Your task to perform on an android device: Clear the shopping cart on amazon. Add corsair k70 to the cart on amazon, then select checkout. Image 0: 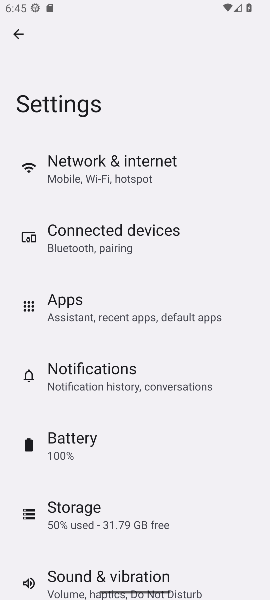
Step 0: press home button
Your task to perform on an android device: Clear the shopping cart on amazon. Add corsair k70 to the cart on amazon, then select checkout. Image 1: 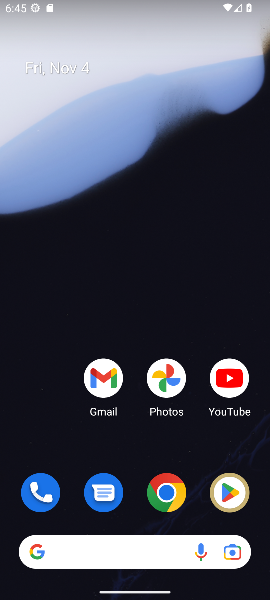
Step 1: drag from (150, 456) to (217, 72)
Your task to perform on an android device: Clear the shopping cart on amazon. Add corsair k70 to the cart on amazon, then select checkout. Image 2: 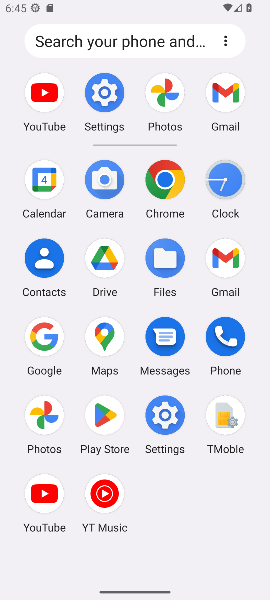
Step 2: click (165, 178)
Your task to perform on an android device: Clear the shopping cart on amazon. Add corsair k70 to the cart on amazon, then select checkout. Image 3: 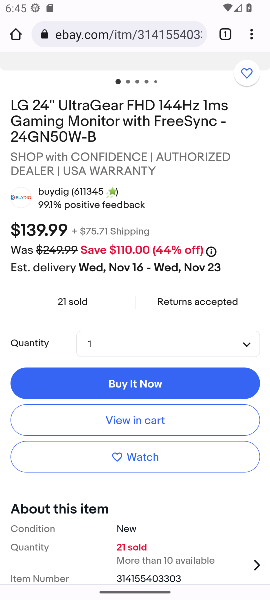
Step 3: click (160, 33)
Your task to perform on an android device: Clear the shopping cart on amazon. Add corsair k70 to the cart on amazon, then select checkout. Image 4: 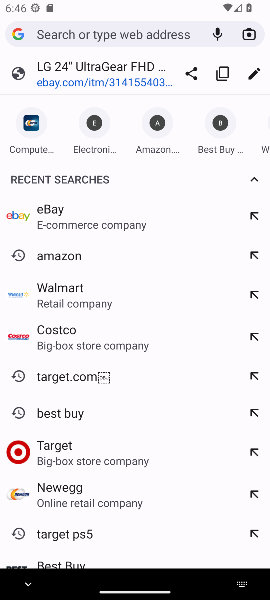
Step 4: type "amazon.com"
Your task to perform on an android device: Clear the shopping cart on amazon. Add corsair k70 to the cart on amazon, then select checkout. Image 5: 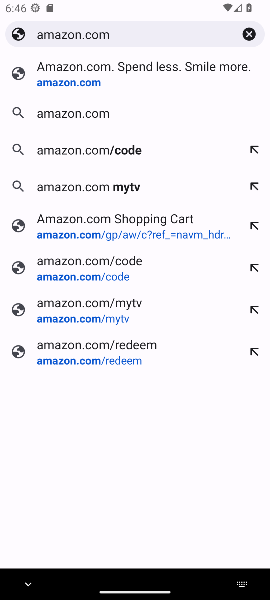
Step 5: press enter
Your task to perform on an android device: Clear the shopping cart on amazon. Add corsair k70 to the cart on amazon, then select checkout. Image 6: 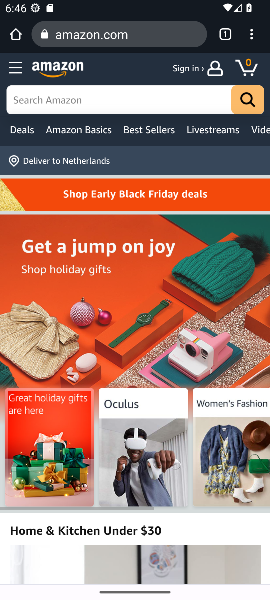
Step 6: click (251, 67)
Your task to perform on an android device: Clear the shopping cart on amazon. Add corsair k70 to the cart on amazon, then select checkout. Image 7: 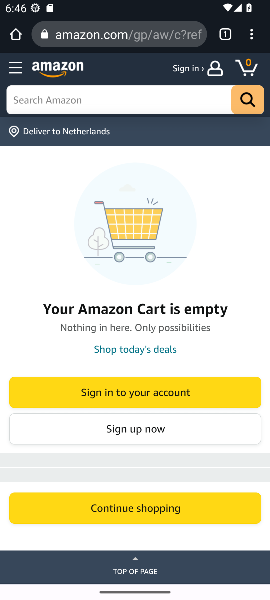
Step 7: click (165, 106)
Your task to perform on an android device: Clear the shopping cart on amazon. Add corsair k70 to the cart on amazon, then select checkout. Image 8: 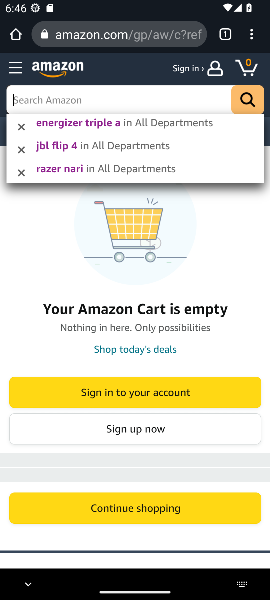
Step 8: type "add corsair k70"
Your task to perform on an android device: Clear the shopping cart on amazon. Add corsair k70 to the cart on amazon, then select checkout. Image 9: 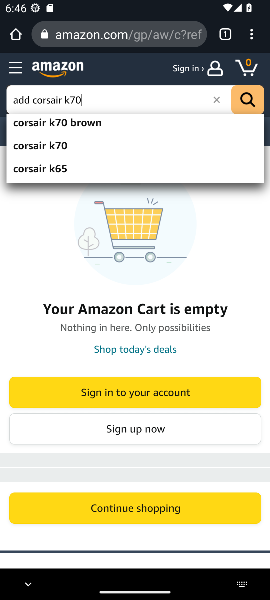
Step 9: press enter
Your task to perform on an android device: Clear the shopping cart on amazon. Add corsair k70 to the cart on amazon, then select checkout. Image 10: 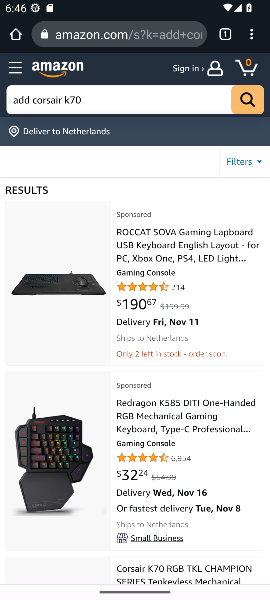
Step 10: drag from (178, 496) to (202, 208)
Your task to perform on an android device: Clear the shopping cart on amazon. Add corsair k70 to the cart on amazon, then select checkout. Image 11: 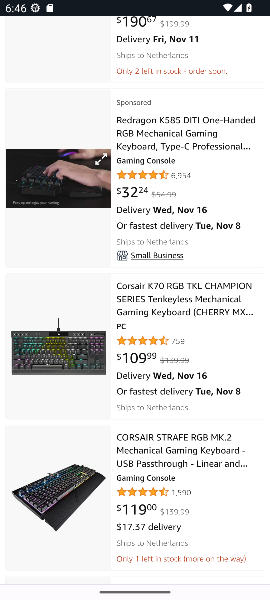
Step 11: click (160, 315)
Your task to perform on an android device: Clear the shopping cart on amazon. Add corsair k70 to the cart on amazon, then select checkout. Image 12: 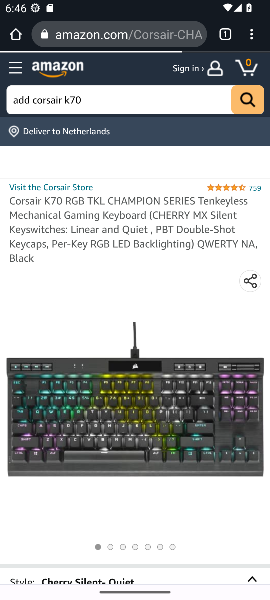
Step 12: drag from (176, 496) to (157, 157)
Your task to perform on an android device: Clear the shopping cart on amazon. Add corsair k70 to the cart on amazon, then select checkout. Image 13: 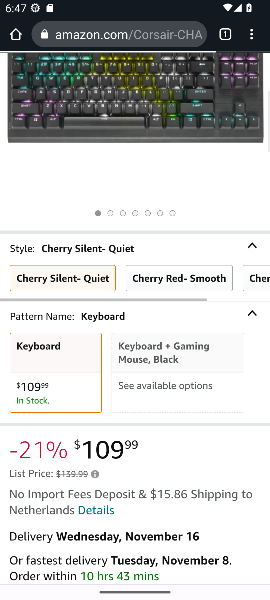
Step 13: drag from (172, 436) to (188, 125)
Your task to perform on an android device: Clear the shopping cart on amazon. Add corsair k70 to the cart on amazon, then select checkout. Image 14: 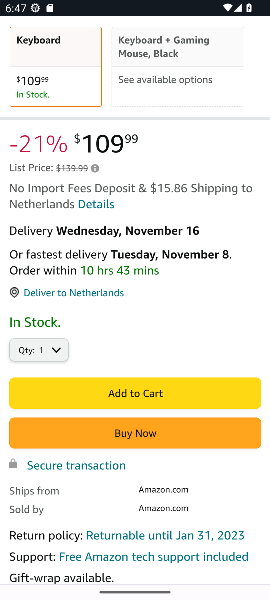
Step 14: click (170, 395)
Your task to perform on an android device: Clear the shopping cart on amazon. Add corsair k70 to the cart on amazon, then select checkout. Image 15: 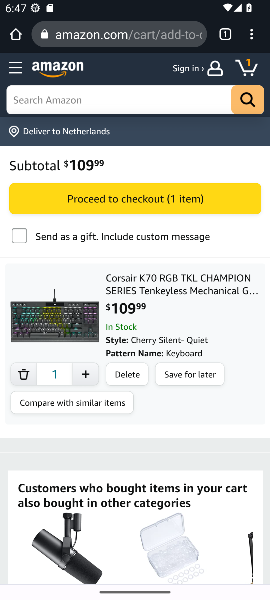
Step 15: click (142, 202)
Your task to perform on an android device: Clear the shopping cart on amazon. Add corsair k70 to the cart on amazon, then select checkout. Image 16: 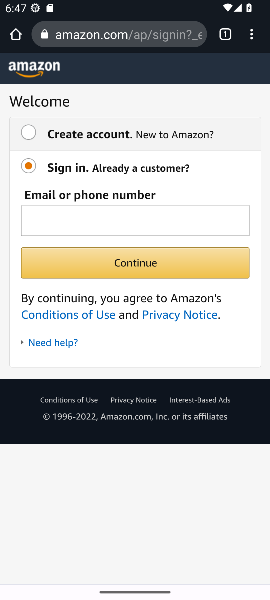
Step 16: task complete